Your task to perform on an android device: uninstall "Microsoft Excel" Image 0: 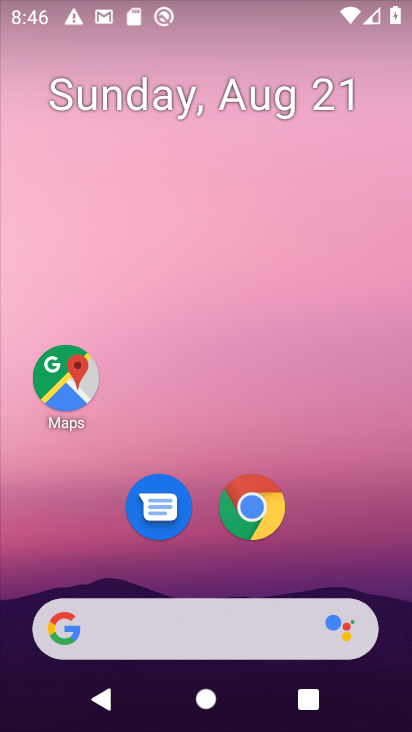
Step 0: drag from (197, 566) to (180, 159)
Your task to perform on an android device: uninstall "Microsoft Excel" Image 1: 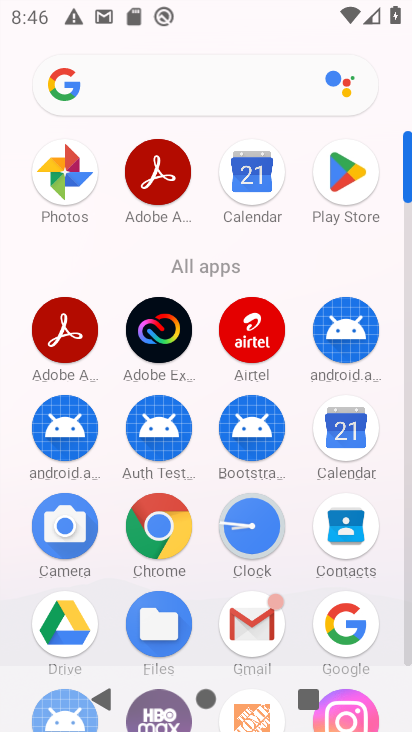
Step 1: click (331, 173)
Your task to perform on an android device: uninstall "Microsoft Excel" Image 2: 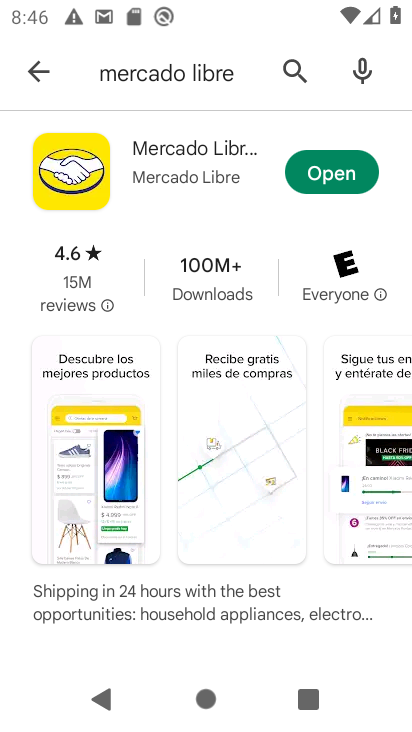
Step 2: click (29, 67)
Your task to perform on an android device: uninstall "Microsoft Excel" Image 3: 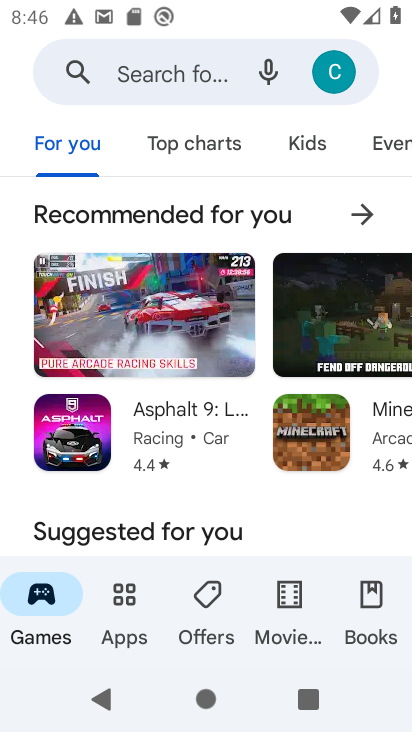
Step 3: click (167, 70)
Your task to perform on an android device: uninstall "Microsoft Excel" Image 4: 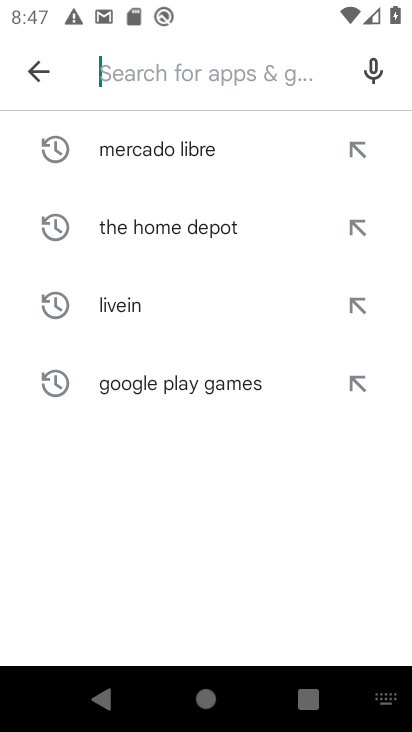
Step 4: type "Microsoft Excel""
Your task to perform on an android device: uninstall "Microsoft Excel" Image 5: 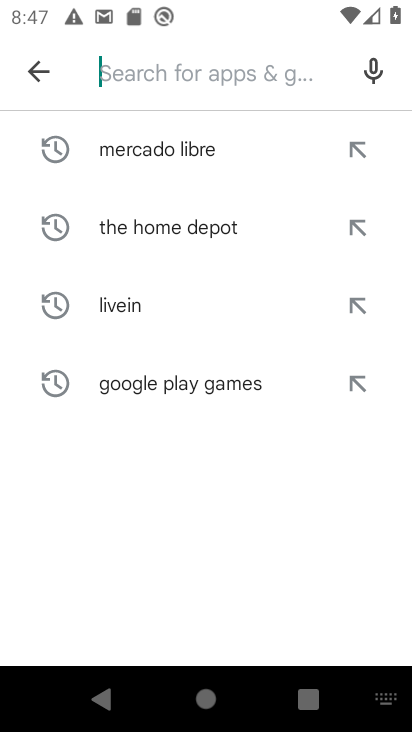
Step 5: click (198, 66)
Your task to perform on an android device: uninstall "Microsoft Excel" Image 6: 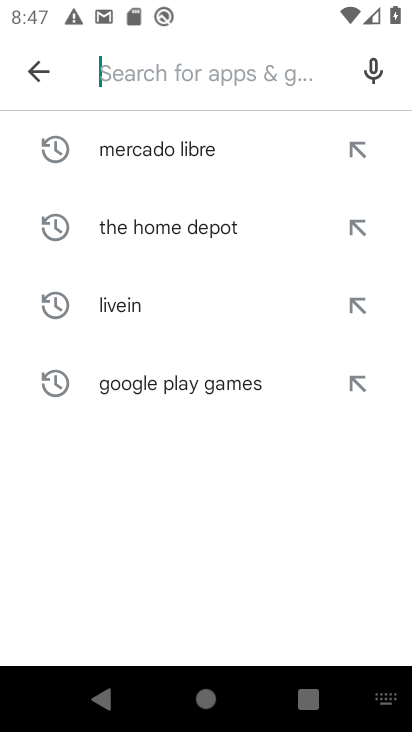
Step 6: type "Microsoft Excel""
Your task to perform on an android device: uninstall "Microsoft Excel" Image 7: 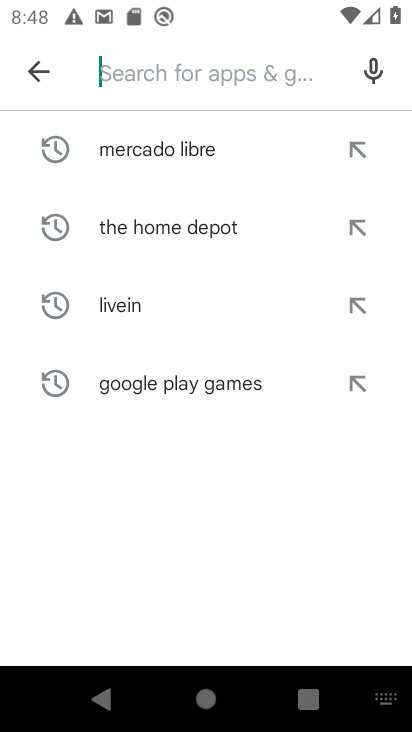
Step 7: task complete